Your task to perform on an android device: Search for a new mascara Image 0: 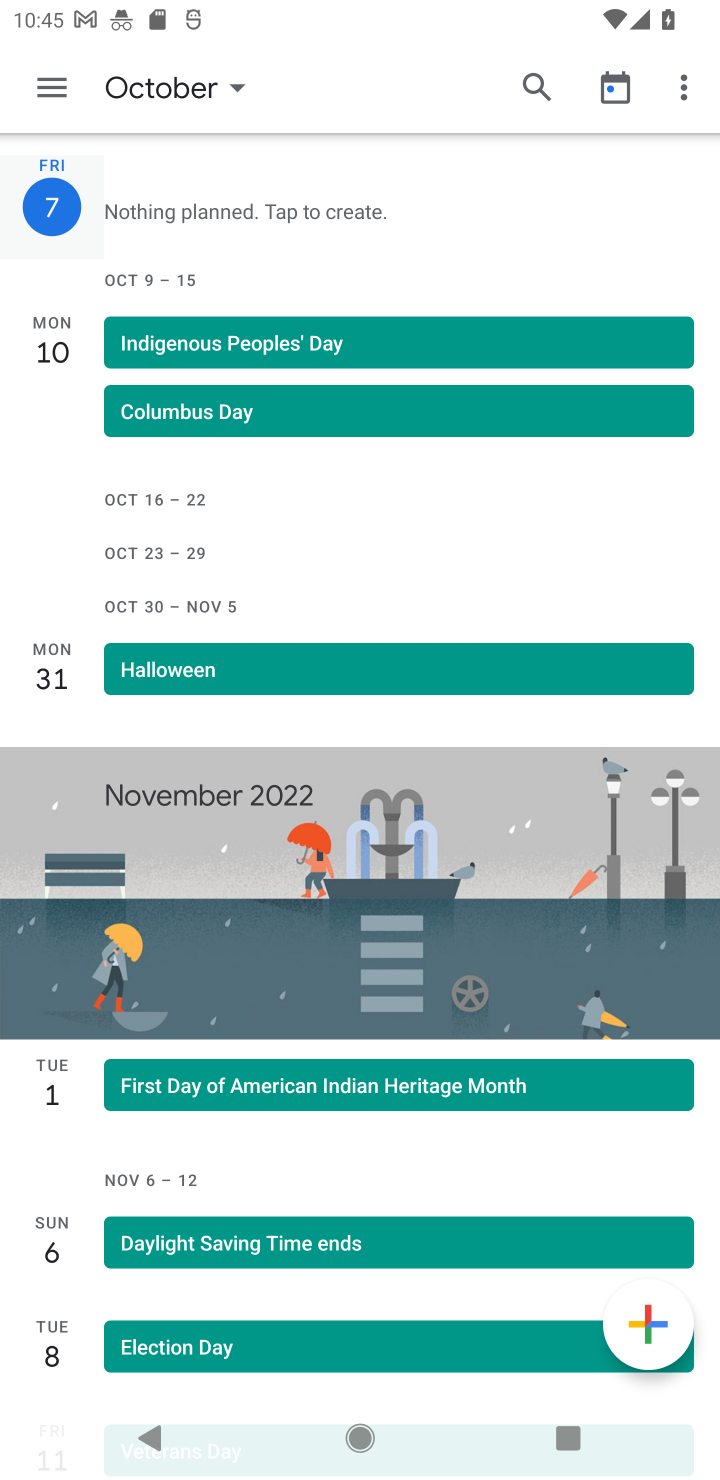
Step 0: press home button
Your task to perform on an android device: Search for a new mascara Image 1: 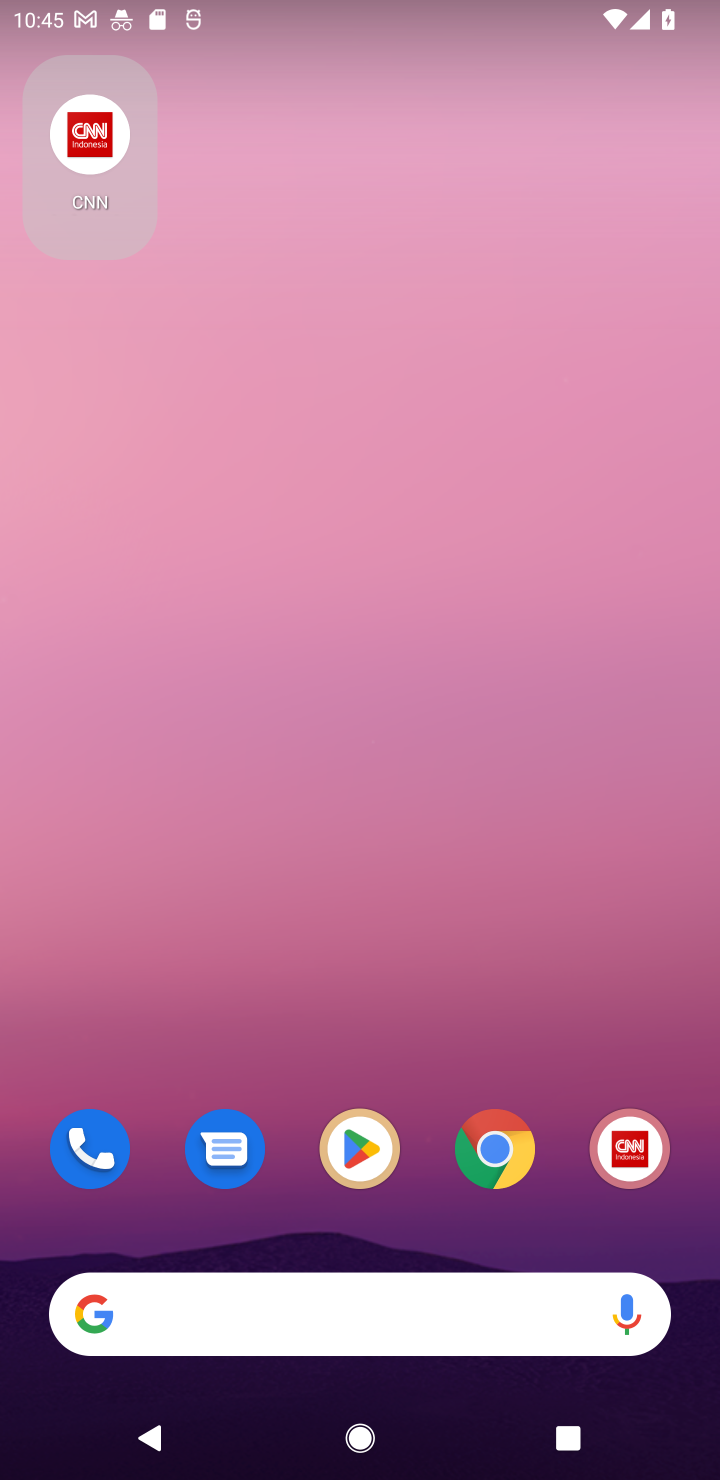
Step 1: click (248, 1290)
Your task to perform on an android device: Search for a new mascara Image 2: 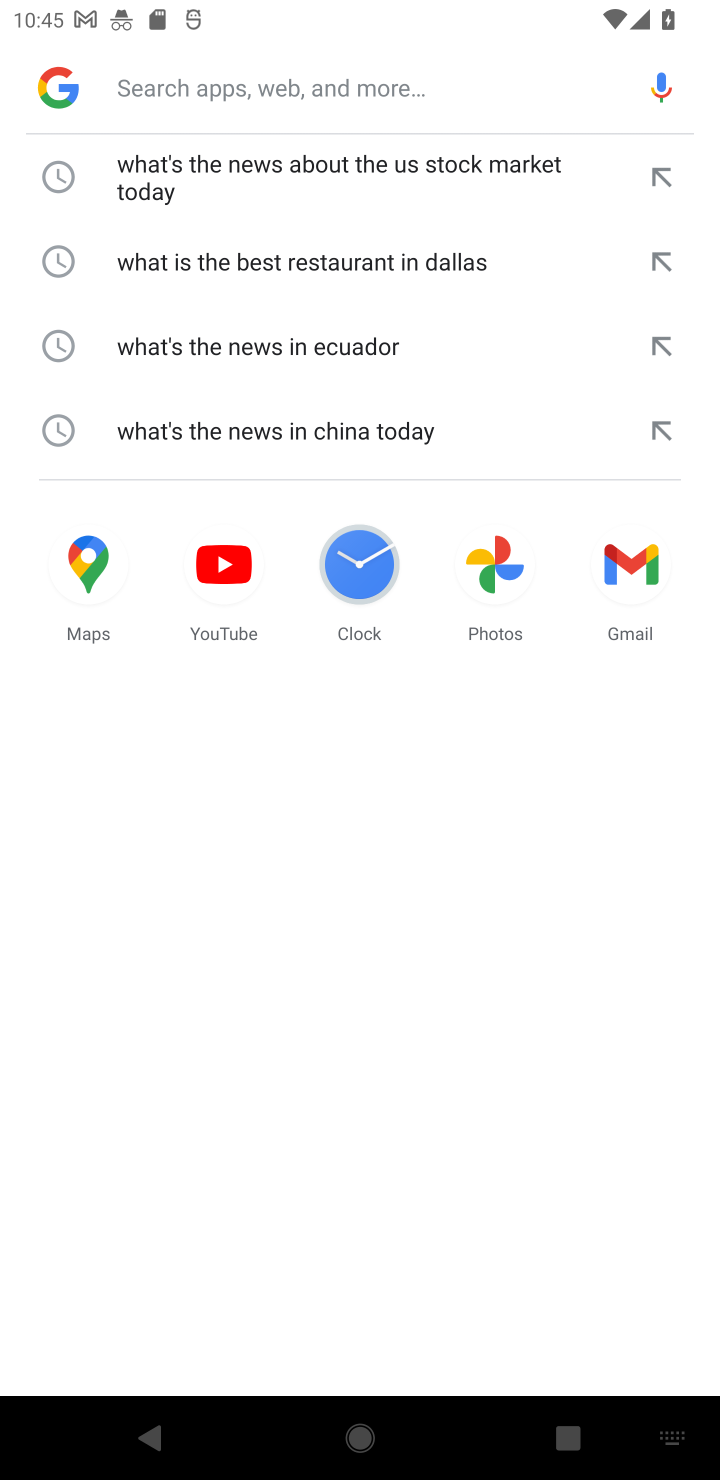
Step 2: type "Search for a new mascara"
Your task to perform on an android device: Search for a new mascara Image 3: 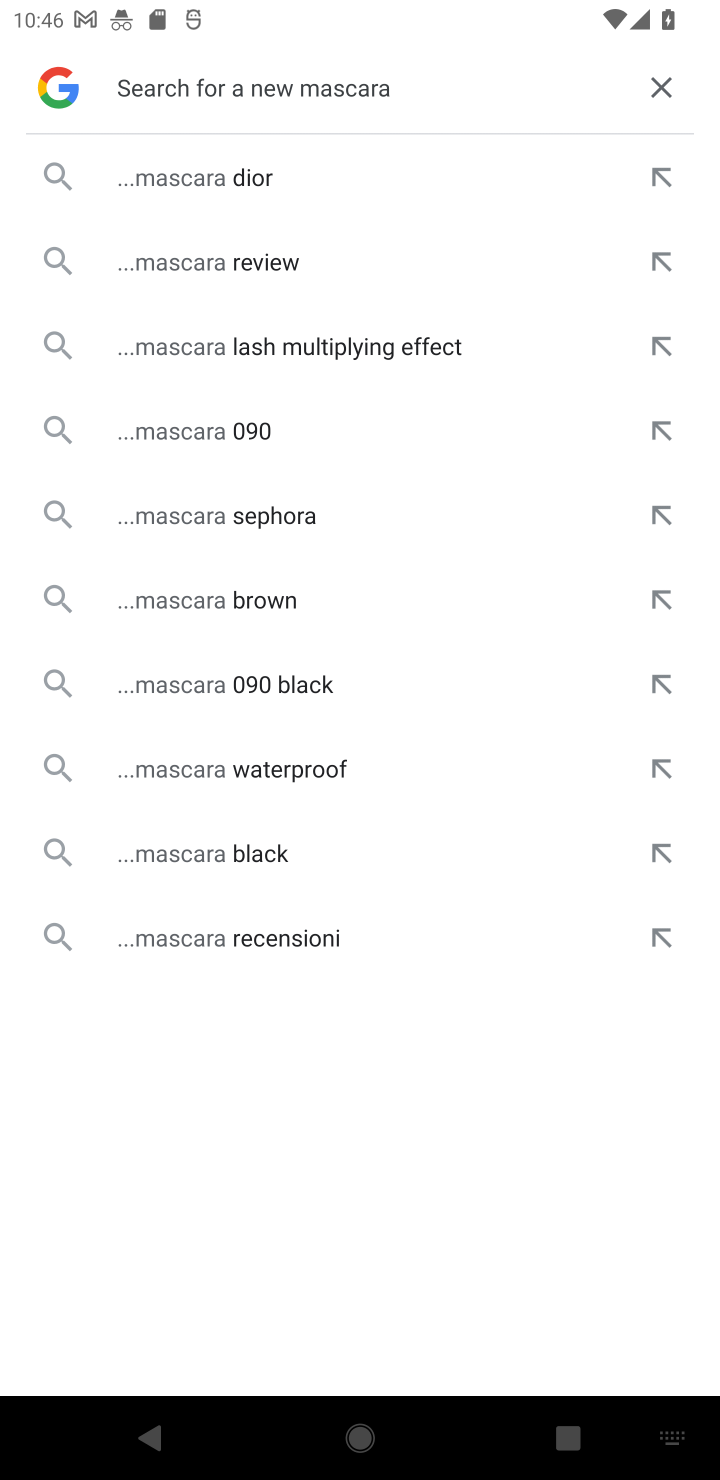
Step 3: click (204, 196)
Your task to perform on an android device: Search for a new mascara Image 4: 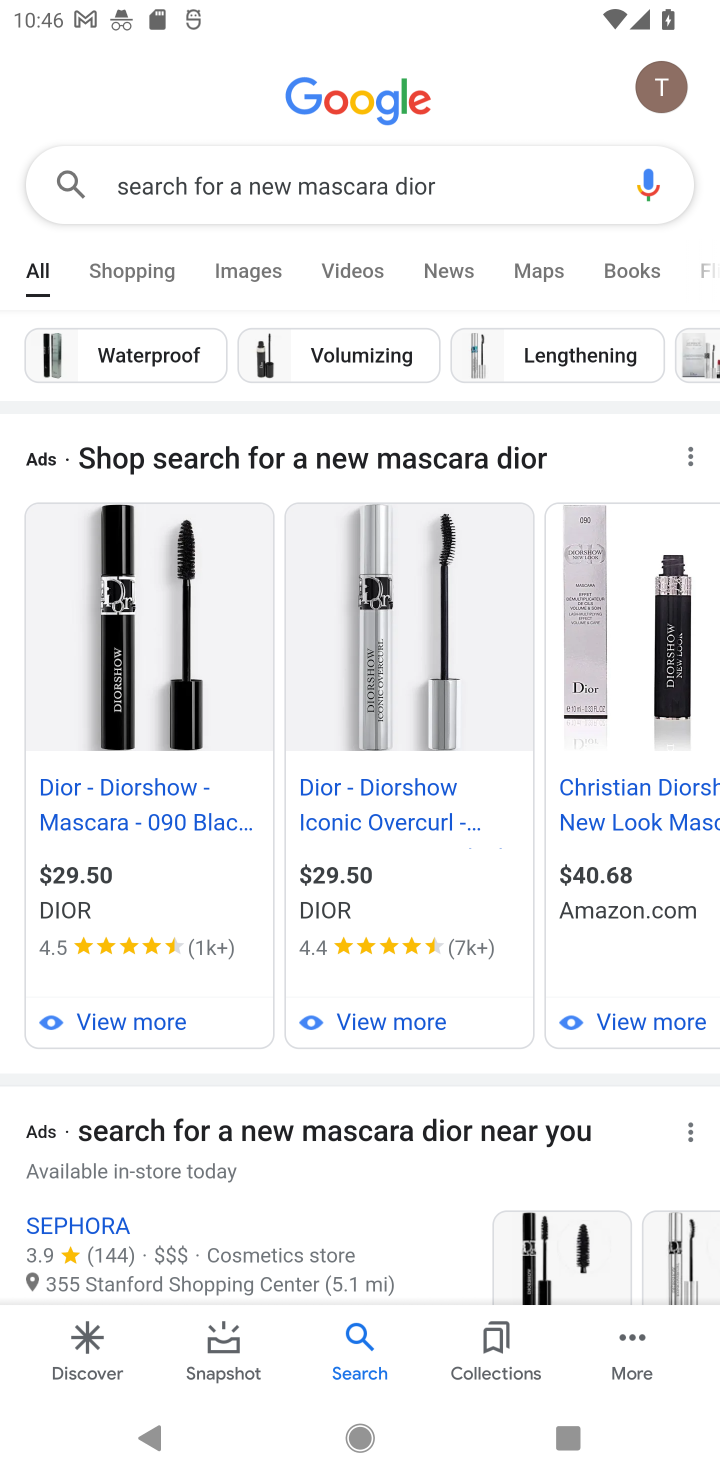
Step 4: task complete